Your task to perform on an android device: toggle notification dots Image 0: 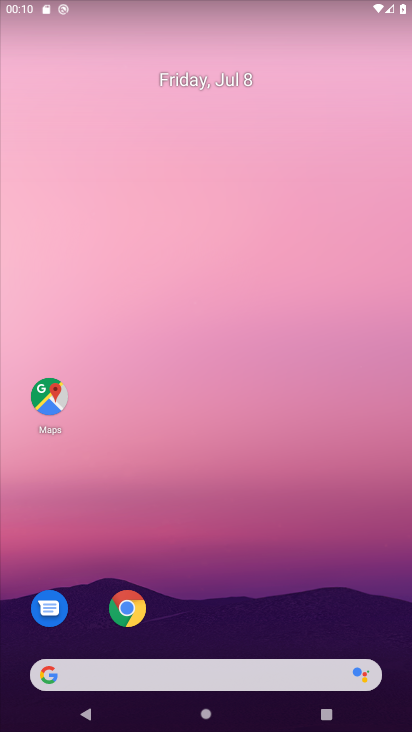
Step 0: drag from (182, 621) to (103, 122)
Your task to perform on an android device: toggle notification dots Image 1: 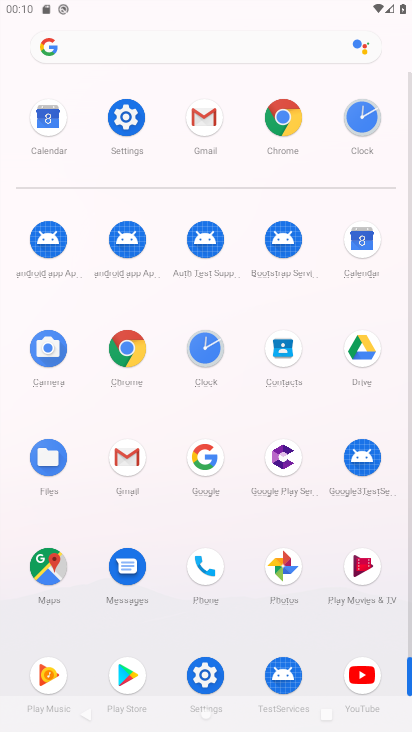
Step 1: click (133, 117)
Your task to perform on an android device: toggle notification dots Image 2: 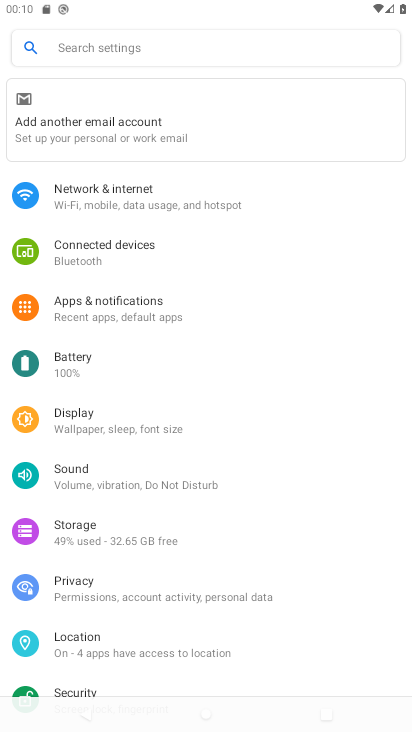
Step 2: click (123, 43)
Your task to perform on an android device: toggle notification dots Image 3: 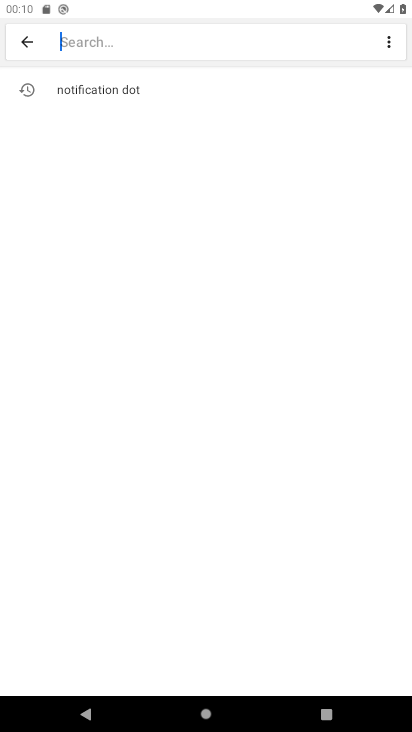
Step 3: type " notification dot "
Your task to perform on an android device: toggle notification dots Image 4: 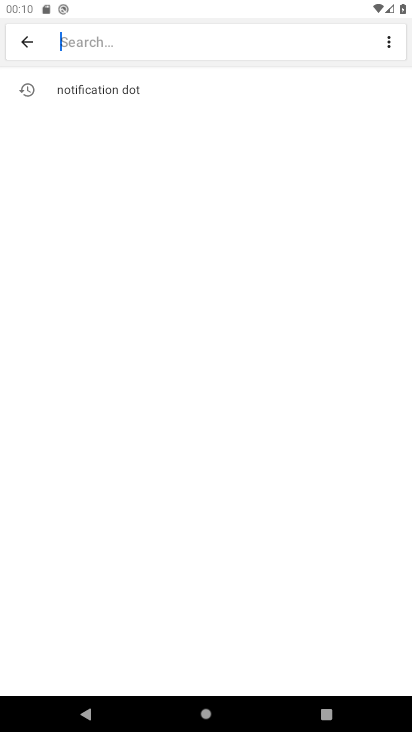
Step 4: click (67, 89)
Your task to perform on an android device: toggle notification dots Image 5: 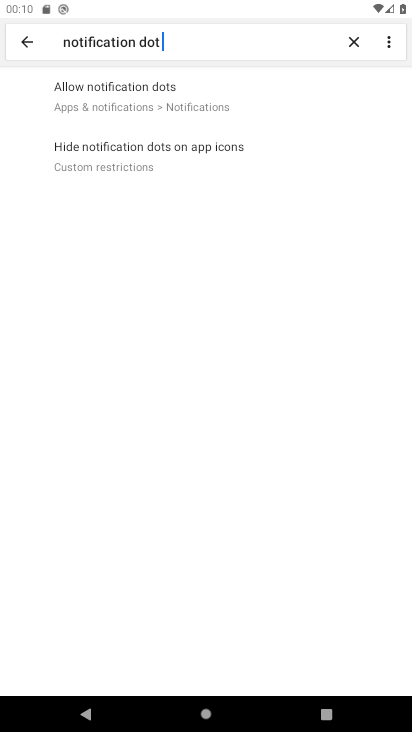
Step 5: click (97, 81)
Your task to perform on an android device: toggle notification dots Image 6: 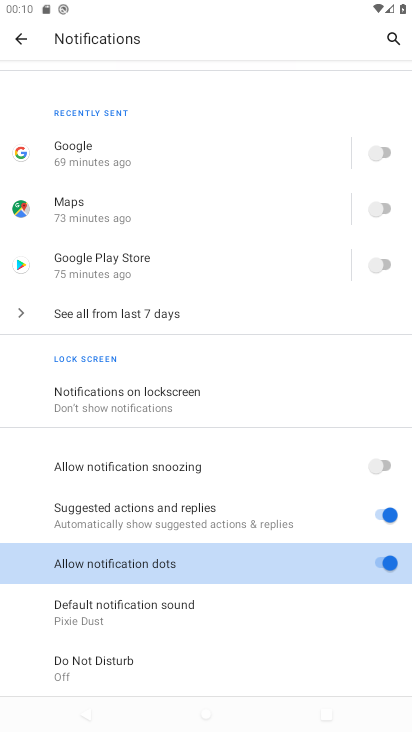
Step 6: click (390, 564)
Your task to perform on an android device: toggle notification dots Image 7: 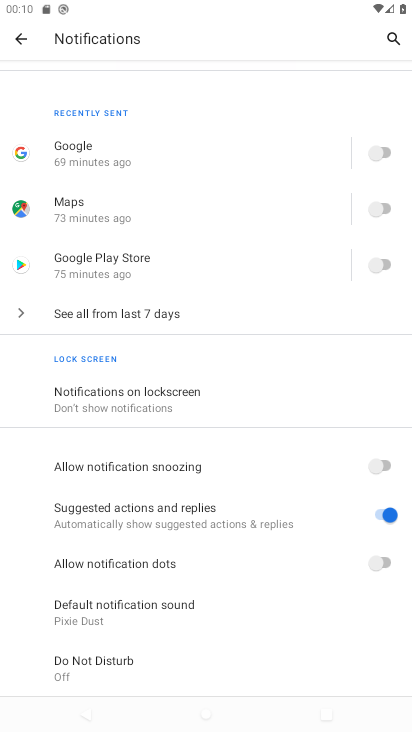
Step 7: task complete